Your task to perform on an android device: Open sound settings Image 0: 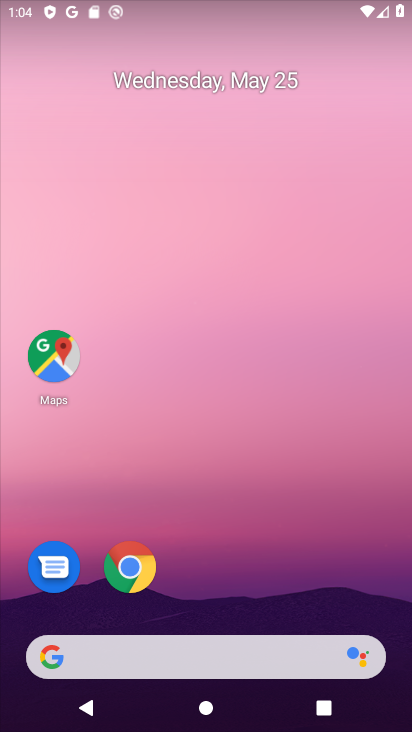
Step 0: drag from (252, 594) to (234, 13)
Your task to perform on an android device: Open sound settings Image 1: 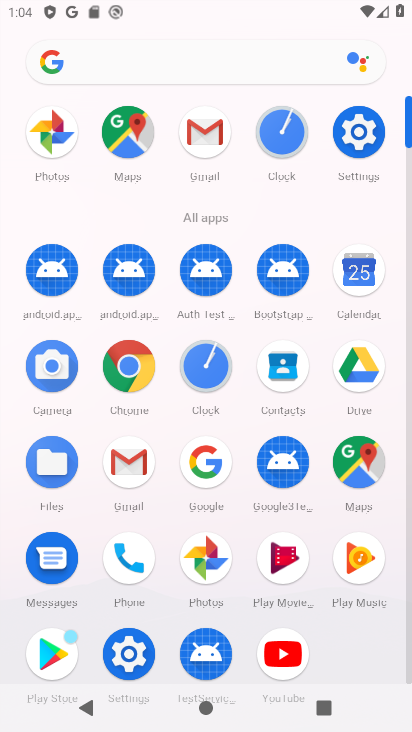
Step 1: click (358, 134)
Your task to perform on an android device: Open sound settings Image 2: 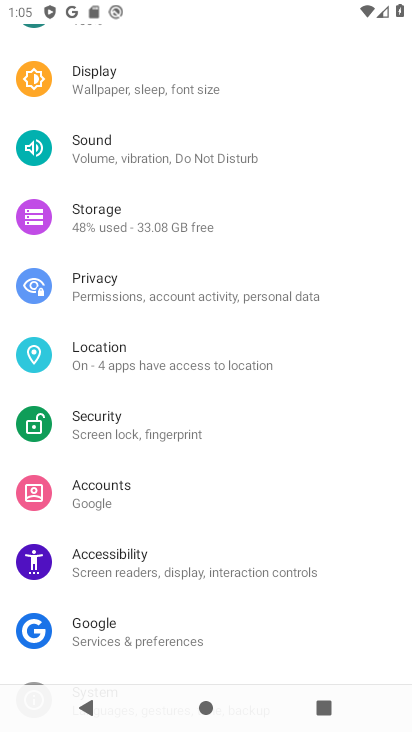
Step 2: click (103, 156)
Your task to perform on an android device: Open sound settings Image 3: 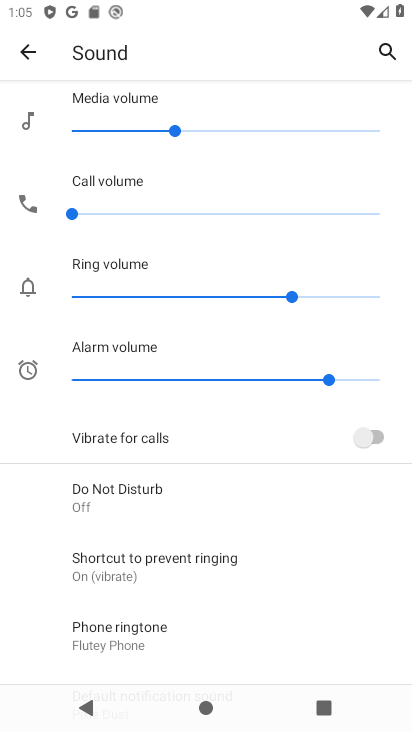
Step 3: task complete